Your task to perform on an android device: Clear all items from cart on ebay.com. Add macbook pro 13 inch to the cart on ebay.com Image 0: 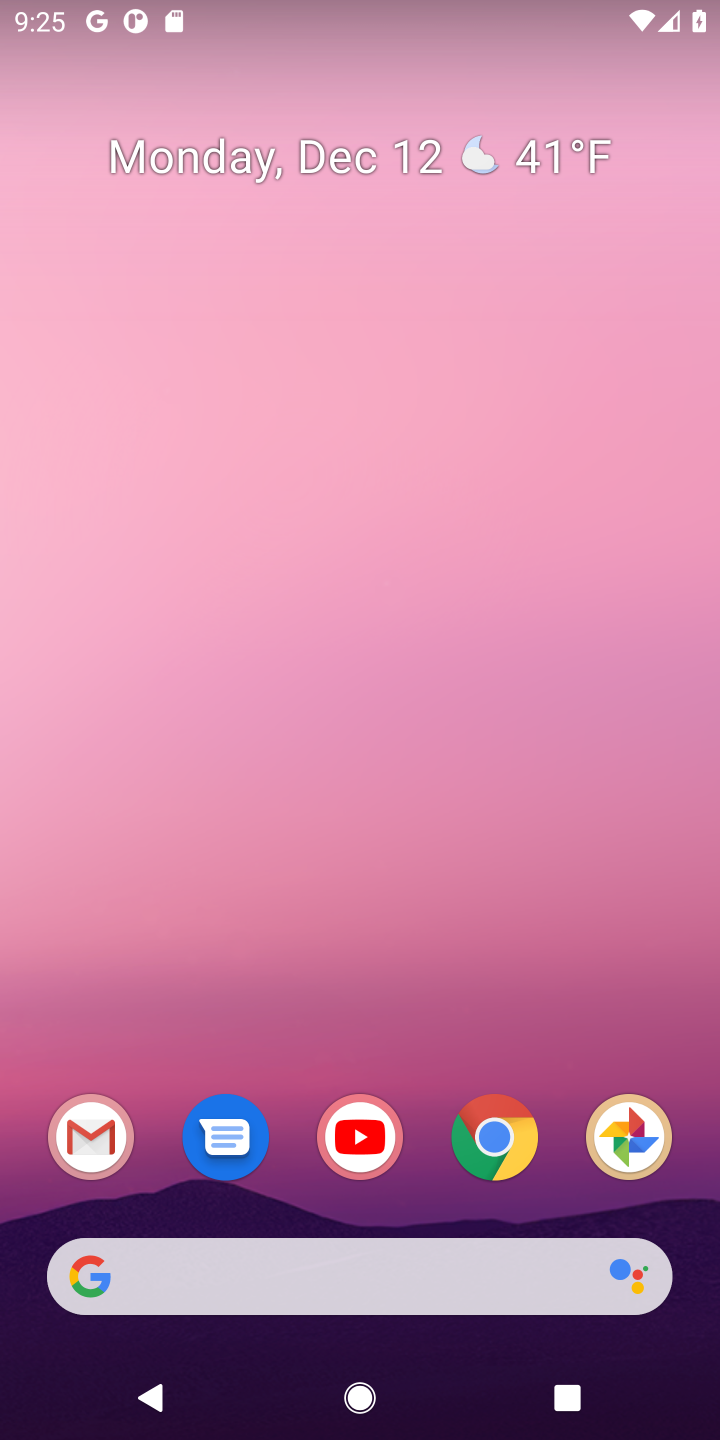
Step 0: task complete